Your task to perform on an android device: turn on notifications settings in the gmail app Image 0: 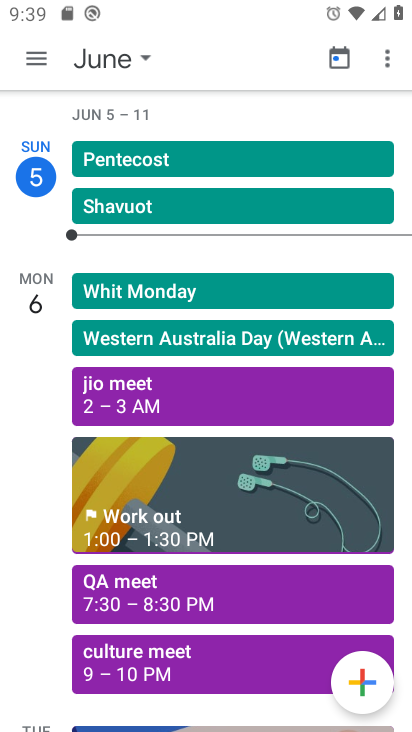
Step 0: press home button
Your task to perform on an android device: turn on notifications settings in the gmail app Image 1: 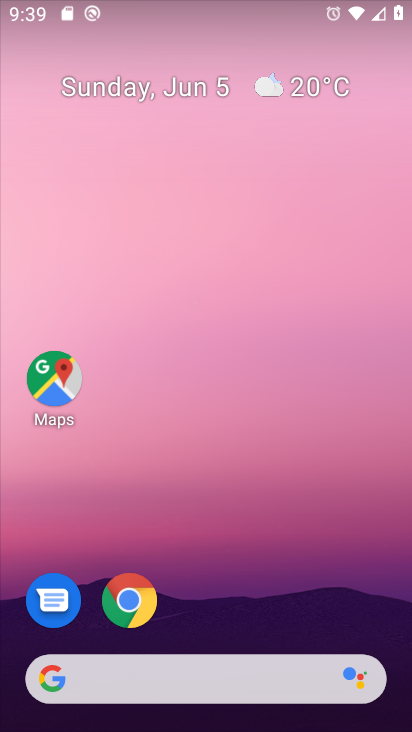
Step 1: drag from (253, 603) to (224, 17)
Your task to perform on an android device: turn on notifications settings in the gmail app Image 2: 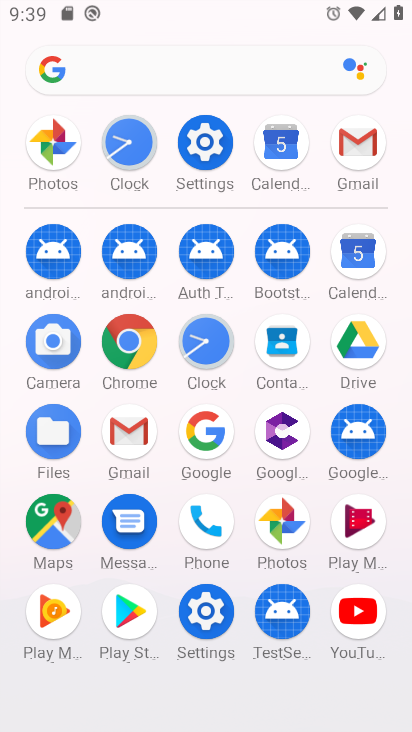
Step 2: click (347, 144)
Your task to perform on an android device: turn on notifications settings in the gmail app Image 3: 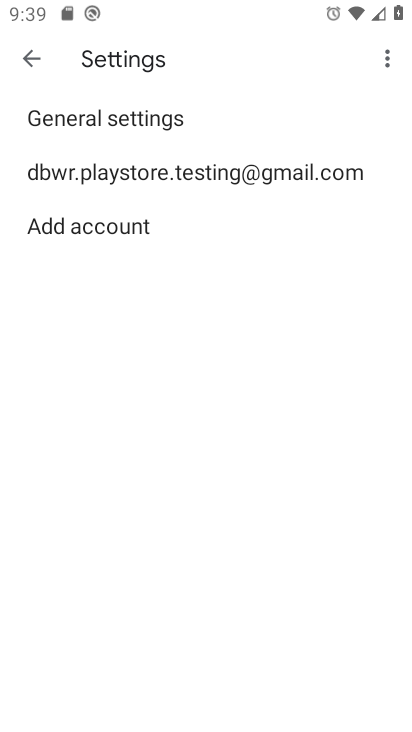
Step 3: click (135, 160)
Your task to perform on an android device: turn on notifications settings in the gmail app Image 4: 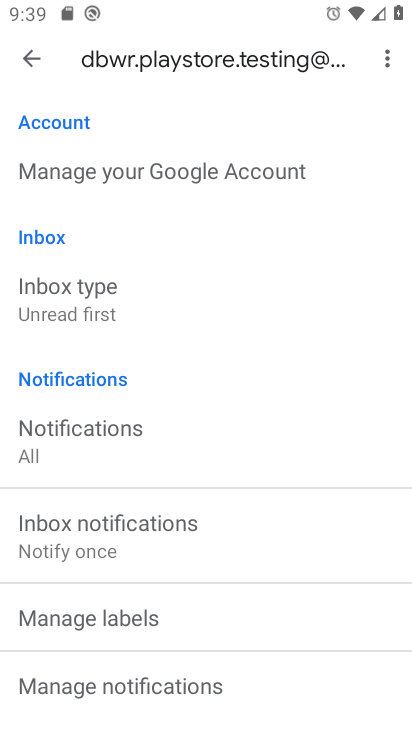
Step 4: click (258, 676)
Your task to perform on an android device: turn on notifications settings in the gmail app Image 5: 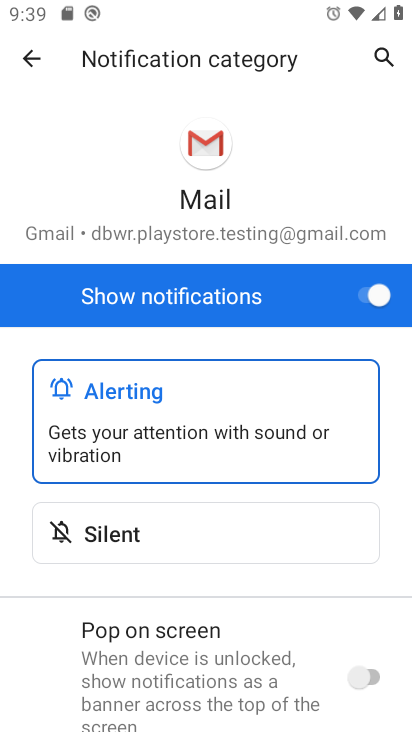
Step 5: task complete